Your task to perform on an android device: Search for seafood restaurants on Google Maps Image 0: 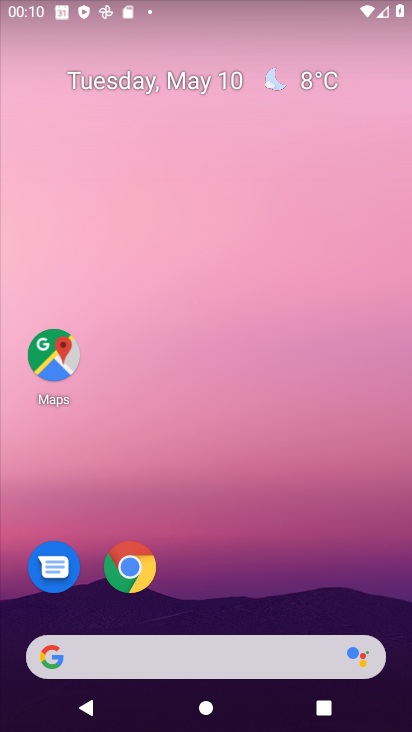
Step 0: click (52, 358)
Your task to perform on an android device: Search for seafood restaurants on Google Maps Image 1: 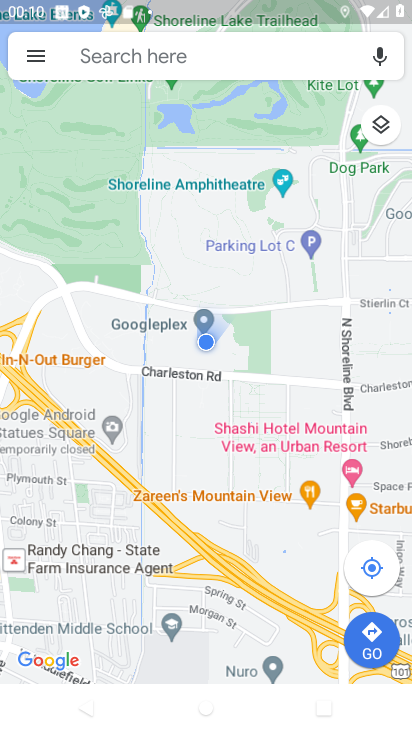
Step 1: click (177, 60)
Your task to perform on an android device: Search for seafood restaurants on Google Maps Image 2: 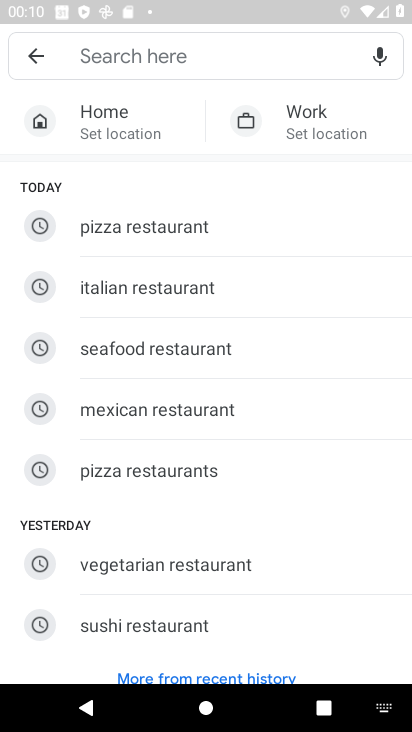
Step 2: type "seafood restaurants"
Your task to perform on an android device: Search for seafood restaurants on Google Maps Image 3: 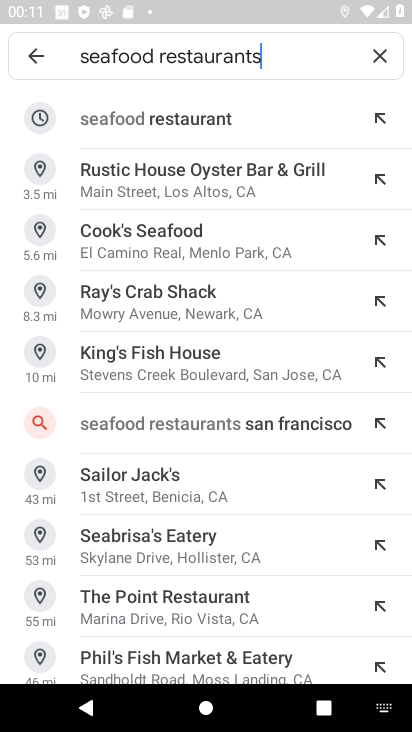
Step 3: click (217, 119)
Your task to perform on an android device: Search for seafood restaurants on Google Maps Image 4: 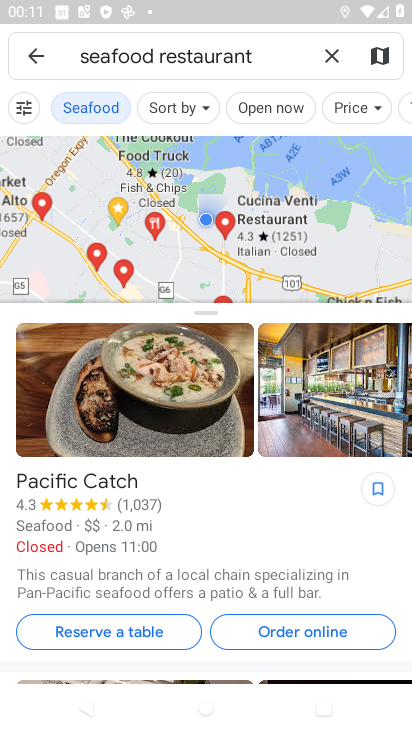
Step 4: task complete